Your task to perform on an android device: Open the calendar app, open the side menu, and click the "Day" option Image 0: 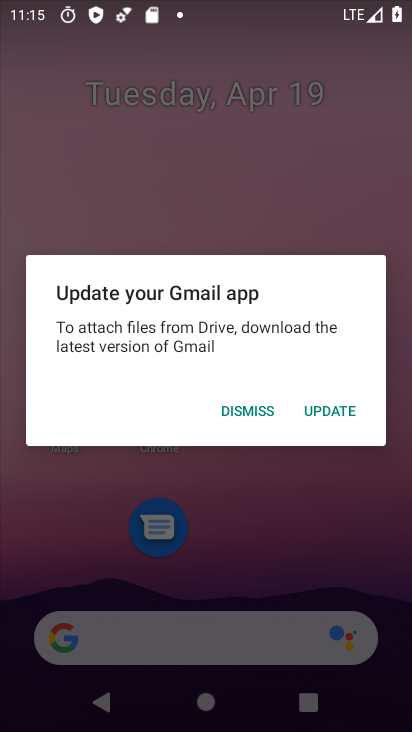
Step 0: click (258, 409)
Your task to perform on an android device: Open the calendar app, open the side menu, and click the "Day" option Image 1: 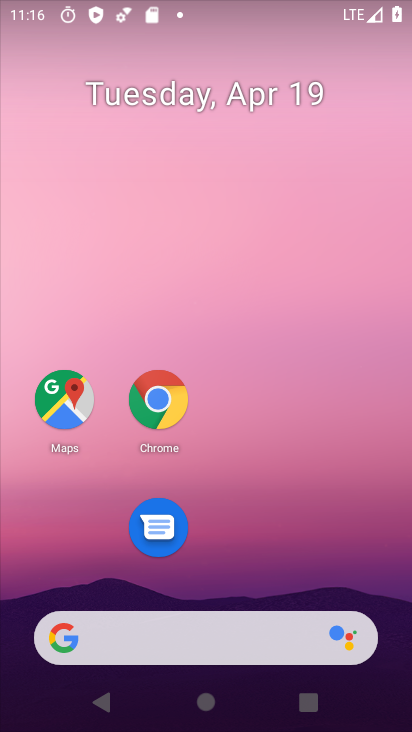
Step 1: drag from (245, 664) to (173, 197)
Your task to perform on an android device: Open the calendar app, open the side menu, and click the "Day" option Image 2: 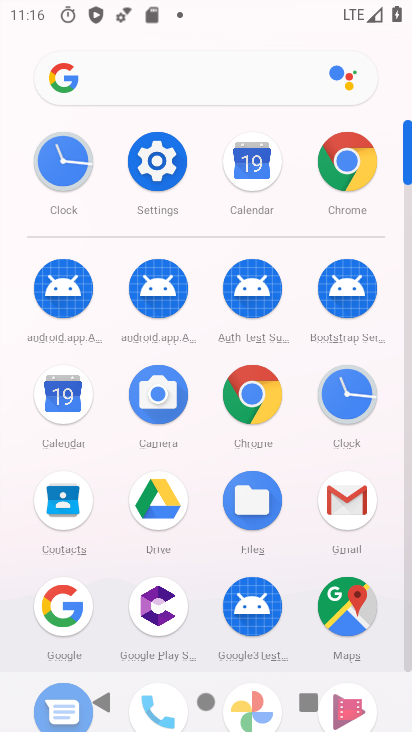
Step 2: click (51, 398)
Your task to perform on an android device: Open the calendar app, open the side menu, and click the "Day" option Image 3: 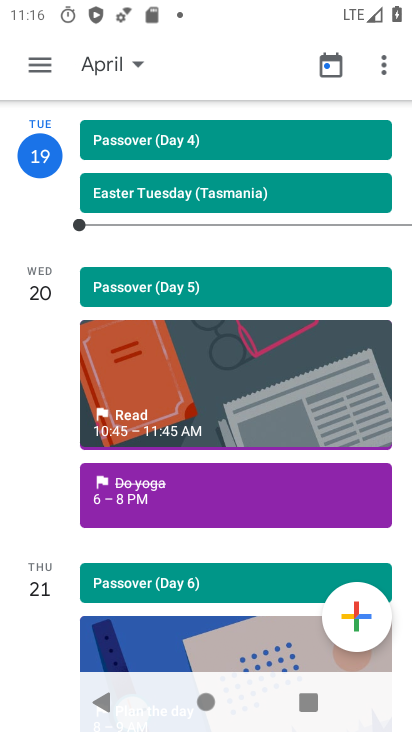
Step 3: click (39, 75)
Your task to perform on an android device: Open the calendar app, open the side menu, and click the "Day" option Image 4: 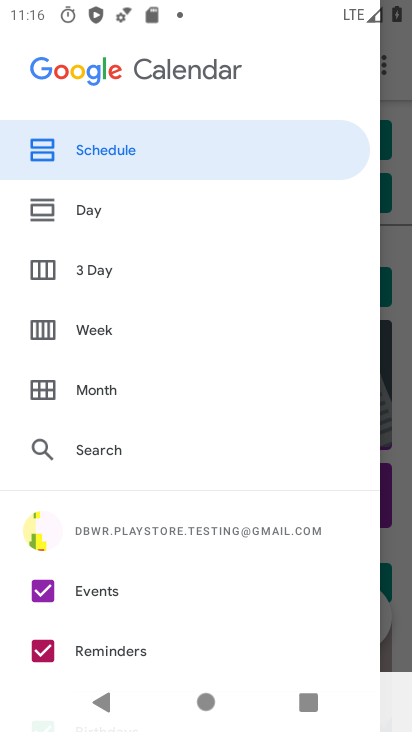
Step 4: click (87, 210)
Your task to perform on an android device: Open the calendar app, open the side menu, and click the "Day" option Image 5: 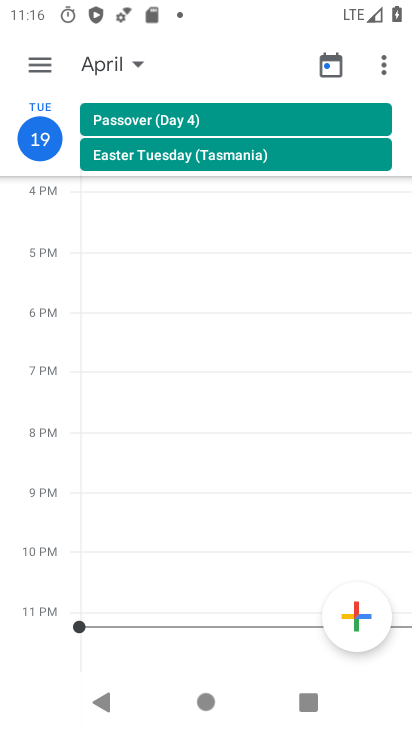
Step 5: task complete